Your task to perform on an android device: Go to CNN.com Image 0: 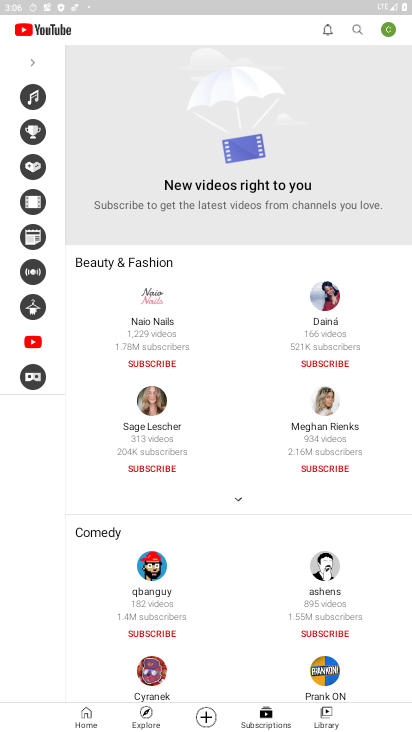
Step 0: press home button
Your task to perform on an android device: Go to CNN.com Image 1: 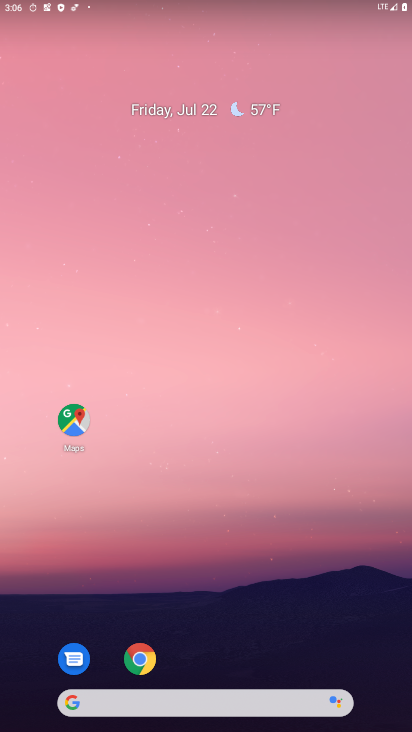
Step 1: click (141, 650)
Your task to perform on an android device: Go to CNN.com Image 2: 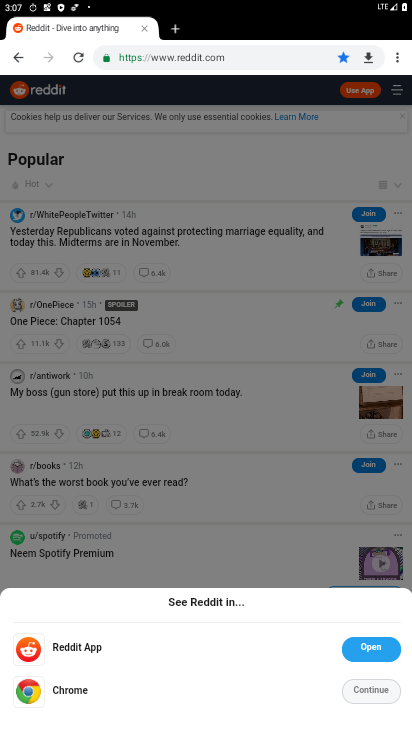
Step 2: click (216, 53)
Your task to perform on an android device: Go to CNN.com Image 3: 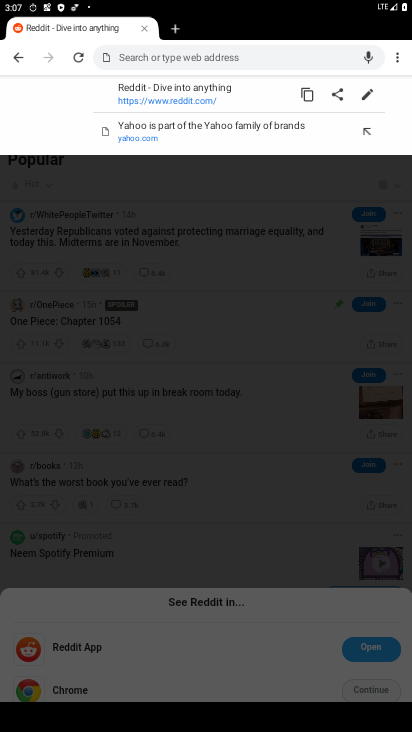
Step 3: type "CNN.com"
Your task to perform on an android device: Go to CNN.com Image 4: 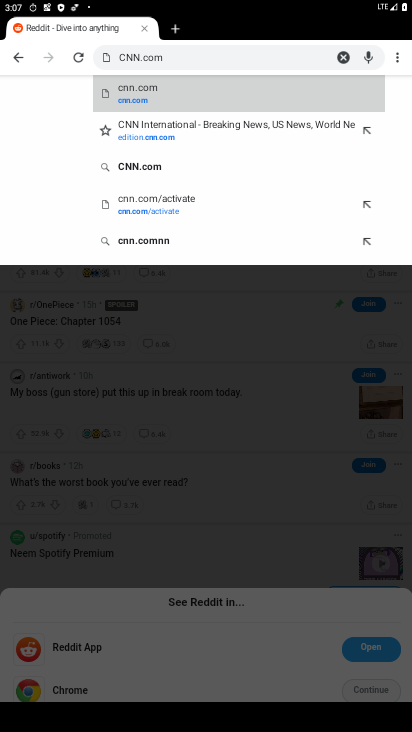
Step 4: click (178, 83)
Your task to perform on an android device: Go to CNN.com Image 5: 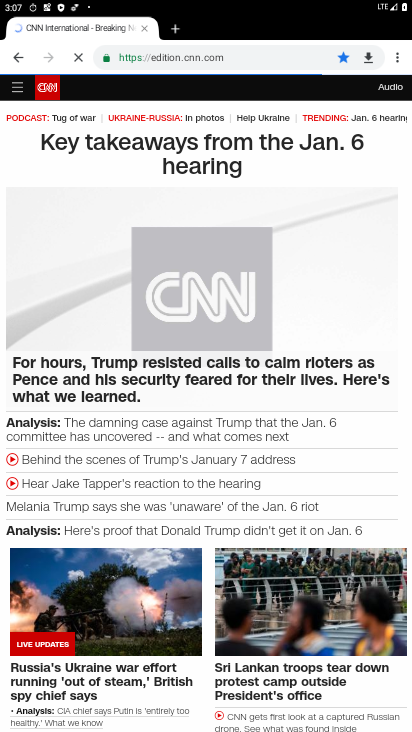
Step 5: task complete